Your task to perform on an android device: What's on the menu at McDonalds? Image 0: 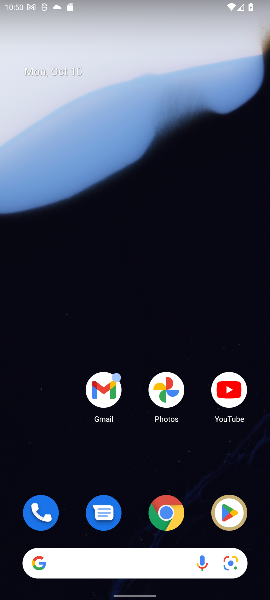
Step 0: drag from (137, 515) to (111, 114)
Your task to perform on an android device: What's on the menu at McDonalds? Image 1: 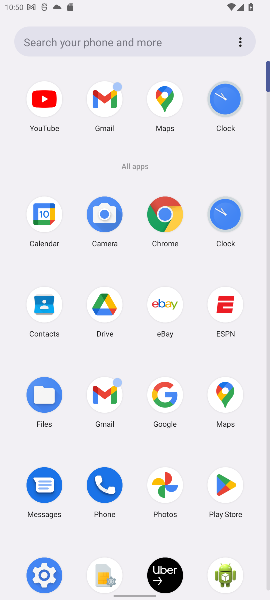
Step 1: click (161, 394)
Your task to perform on an android device: What's on the menu at McDonalds? Image 2: 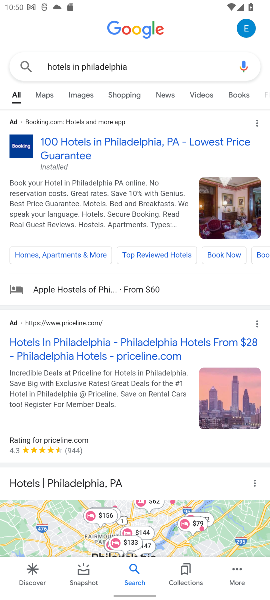
Step 2: click (141, 68)
Your task to perform on an android device: What's on the menu at McDonalds? Image 3: 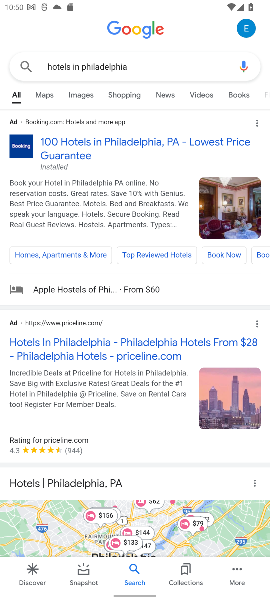
Step 3: click (141, 68)
Your task to perform on an android device: What's on the menu at McDonalds? Image 4: 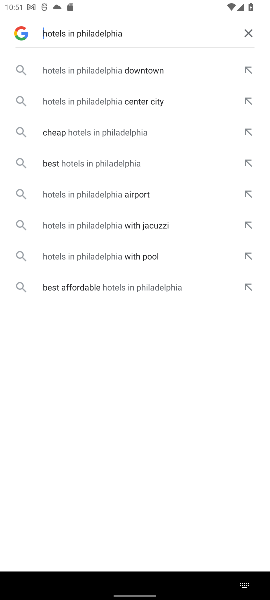
Step 4: click (247, 33)
Your task to perform on an android device: What's on the menu at McDonalds? Image 5: 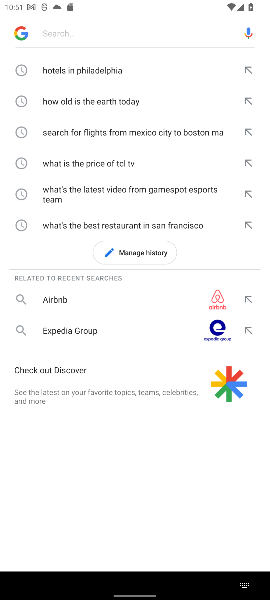
Step 5: type "the menu at McDonalds"
Your task to perform on an android device: What's on the menu at McDonalds? Image 6: 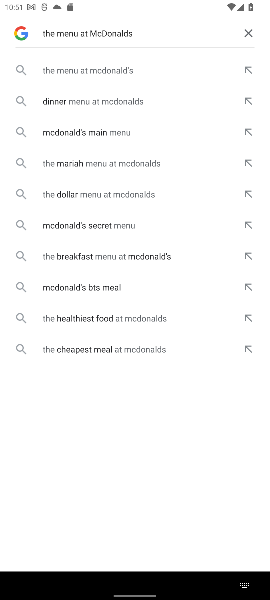
Step 6: click (101, 65)
Your task to perform on an android device: What's on the menu at McDonalds? Image 7: 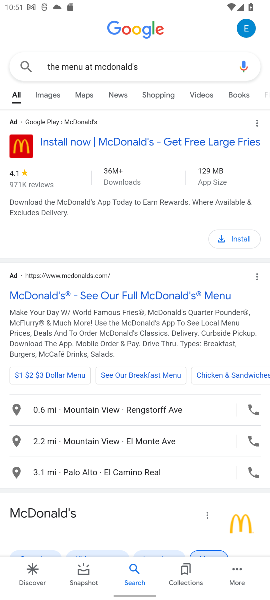
Step 7: task complete